Your task to perform on an android device: change notification settings in the gmail app Image 0: 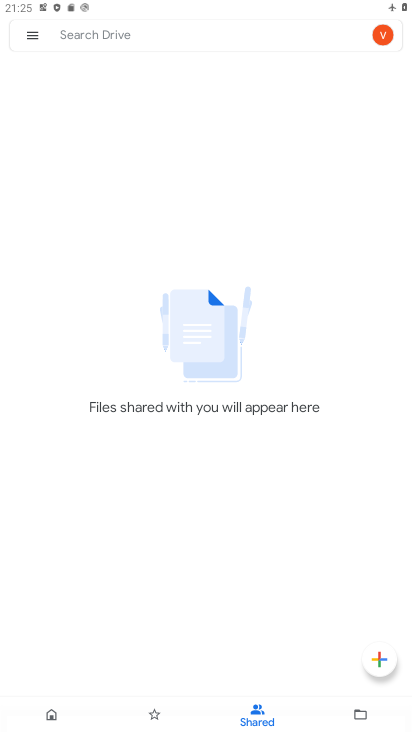
Step 0: press home button
Your task to perform on an android device: change notification settings in the gmail app Image 1: 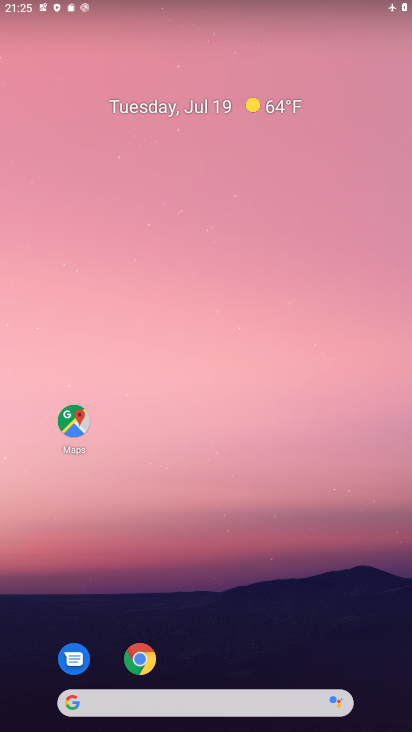
Step 1: drag from (231, 664) to (245, 109)
Your task to perform on an android device: change notification settings in the gmail app Image 2: 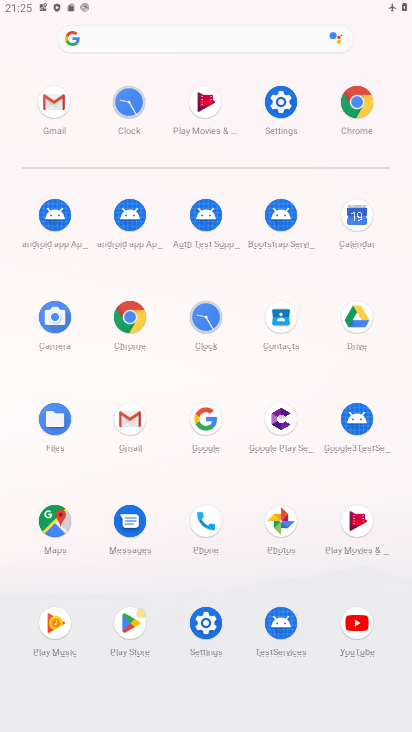
Step 2: click (282, 113)
Your task to perform on an android device: change notification settings in the gmail app Image 3: 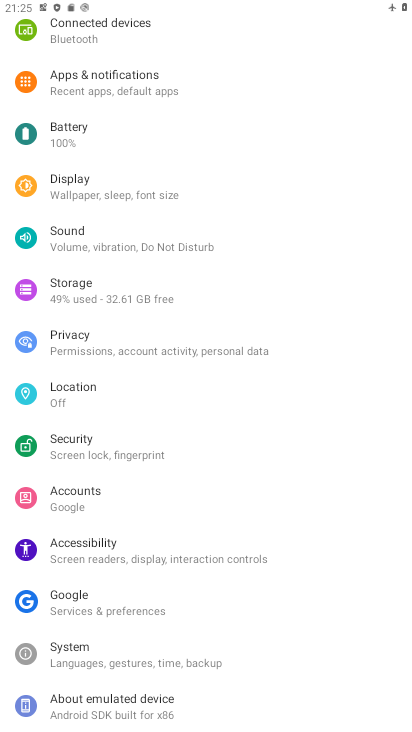
Step 3: click (151, 100)
Your task to perform on an android device: change notification settings in the gmail app Image 4: 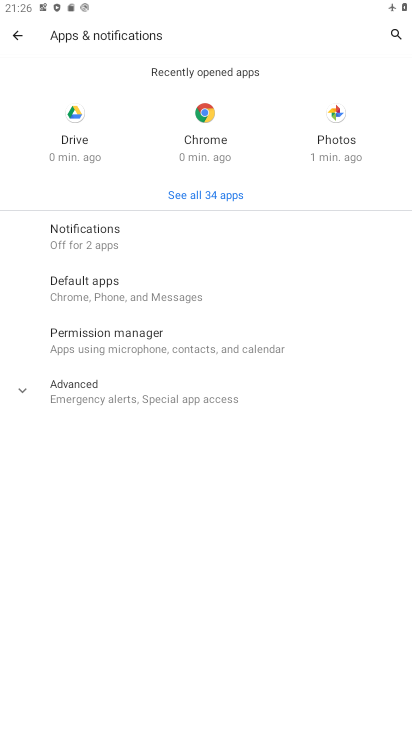
Step 4: click (223, 189)
Your task to perform on an android device: change notification settings in the gmail app Image 5: 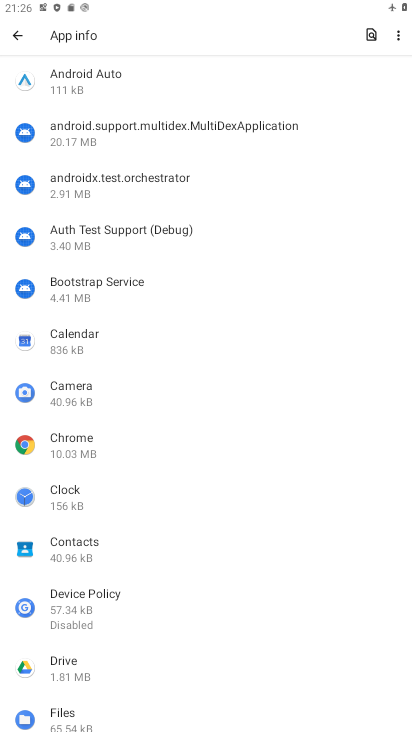
Step 5: drag from (141, 716) to (255, 78)
Your task to perform on an android device: change notification settings in the gmail app Image 6: 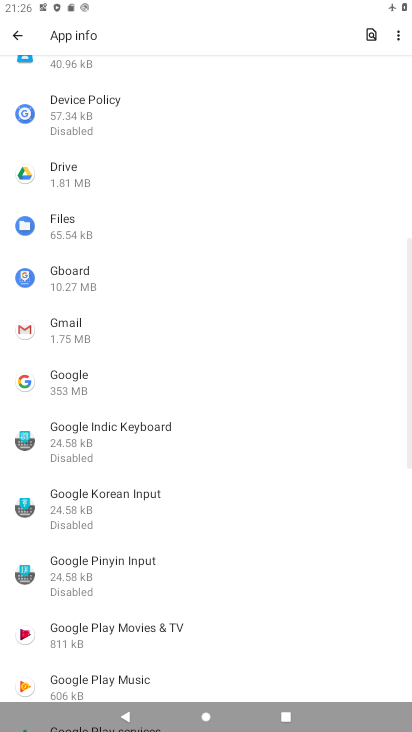
Step 6: click (78, 328)
Your task to perform on an android device: change notification settings in the gmail app Image 7: 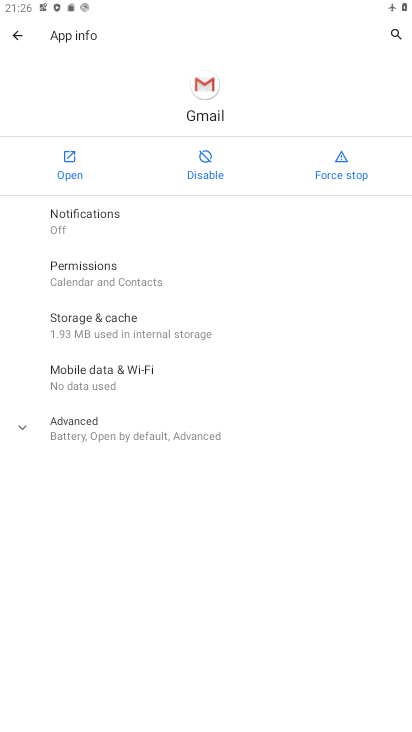
Step 7: click (122, 230)
Your task to perform on an android device: change notification settings in the gmail app Image 8: 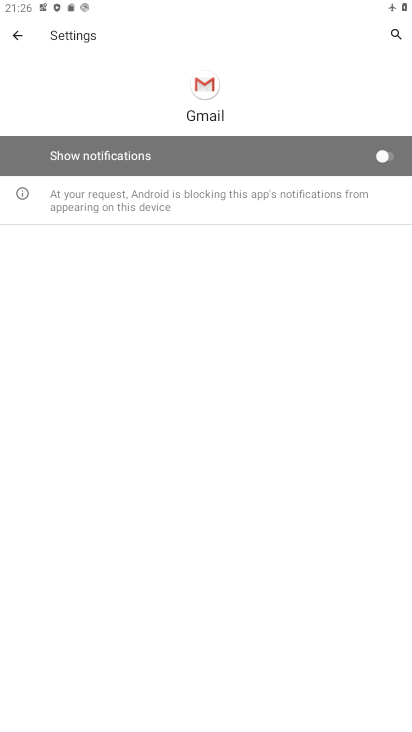
Step 8: click (384, 161)
Your task to perform on an android device: change notification settings in the gmail app Image 9: 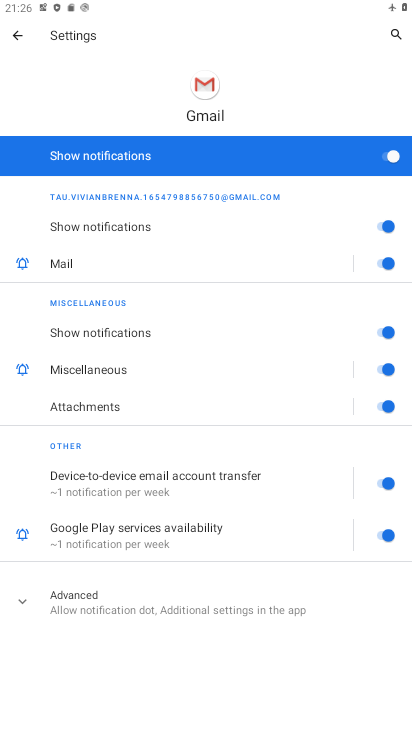
Step 9: task complete